Your task to perform on an android device: find photos in the google photos app Image 0: 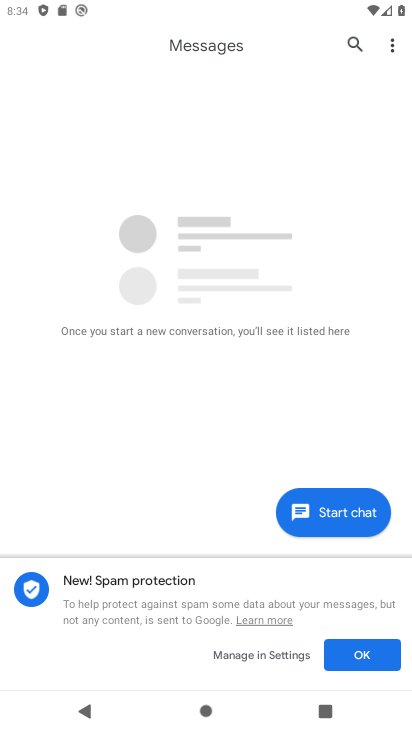
Step 0: press home button
Your task to perform on an android device: find photos in the google photos app Image 1: 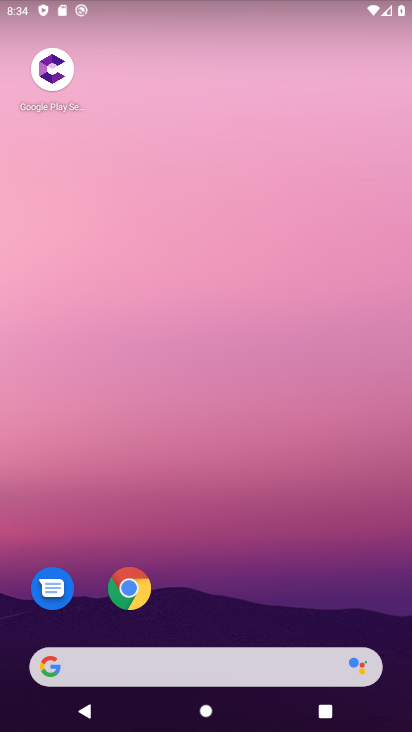
Step 1: drag from (246, 652) to (202, 279)
Your task to perform on an android device: find photos in the google photos app Image 2: 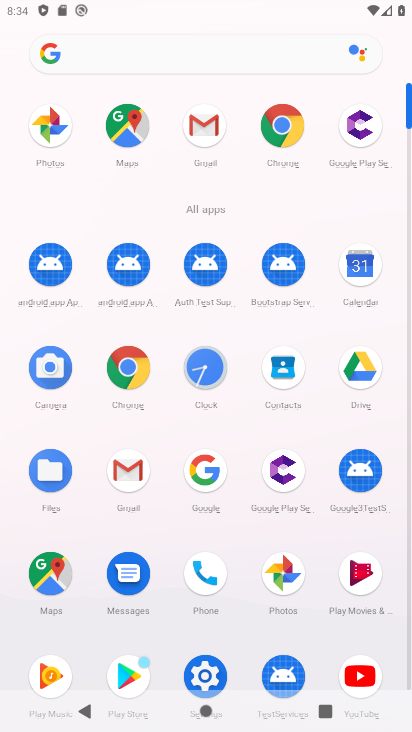
Step 2: click (54, 133)
Your task to perform on an android device: find photos in the google photos app Image 3: 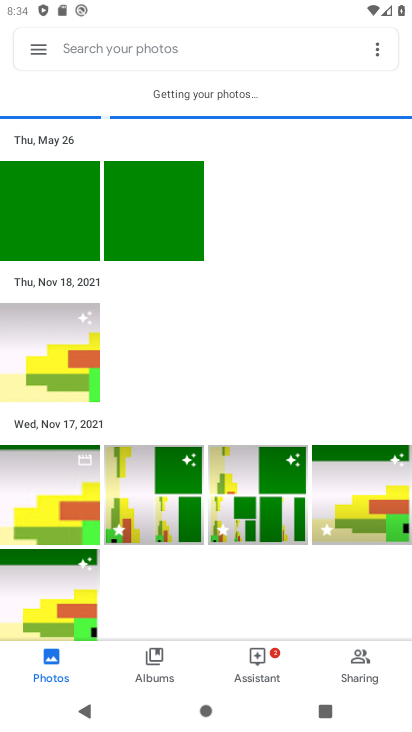
Step 3: task complete